Your task to perform on an android device: open device folders in google photos Image 0: 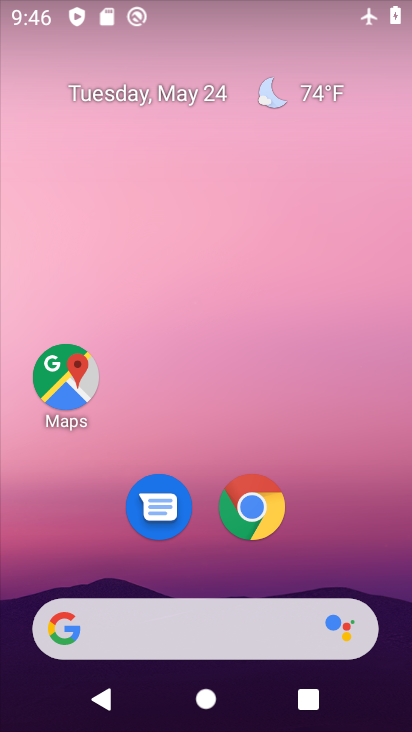
Step 0: drag from (228, 729) to (208, 135)
Your task to perform on an android device: open device folders in google photos Image 1: 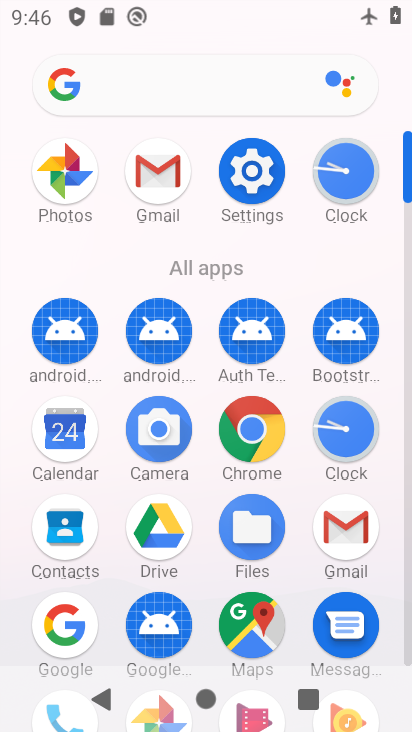
Step 1: click (66, 162)
Your task to perform on an android device: open device folders in google photos Image 2: 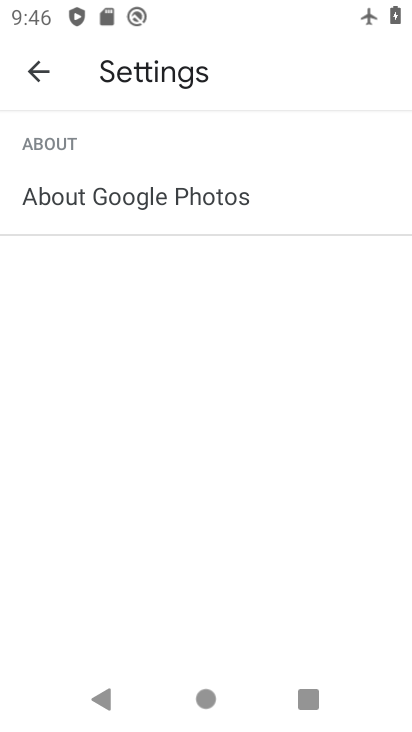
Step 2: click (34, 72)
Your task to perform on an android device: open device folders in google photos Image 3: 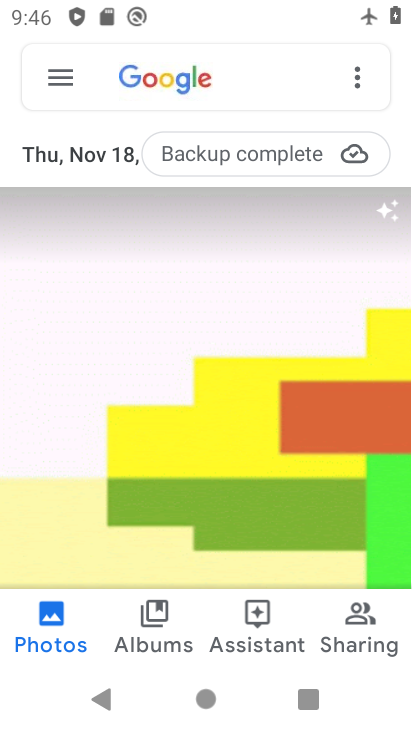
Step 3: click (57, 81)
Your task to perform on an android device: open device folders in google photos Image 4: 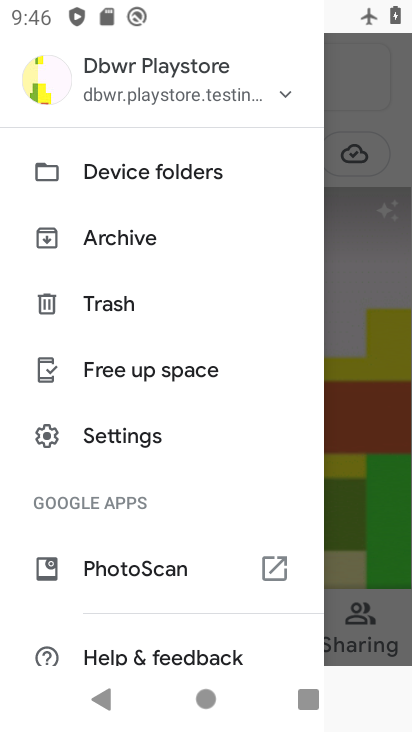
Step 4: click (135, 170)
Your task to perform on an android device: open device folders in google photos Image 5: 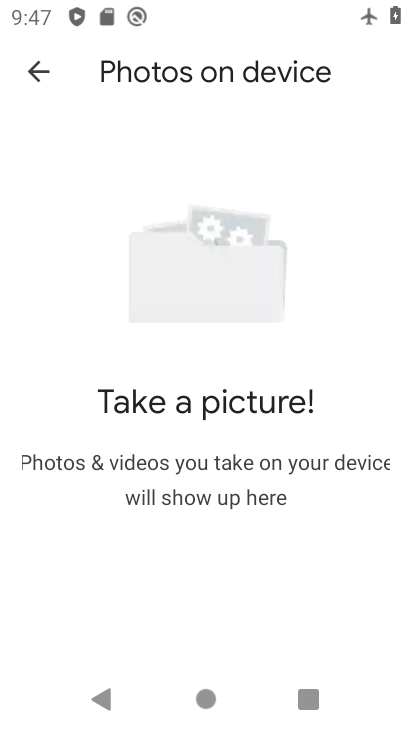
Step 5: task complete